Your task to perform on an android device: change alarm snooze length Image 0: 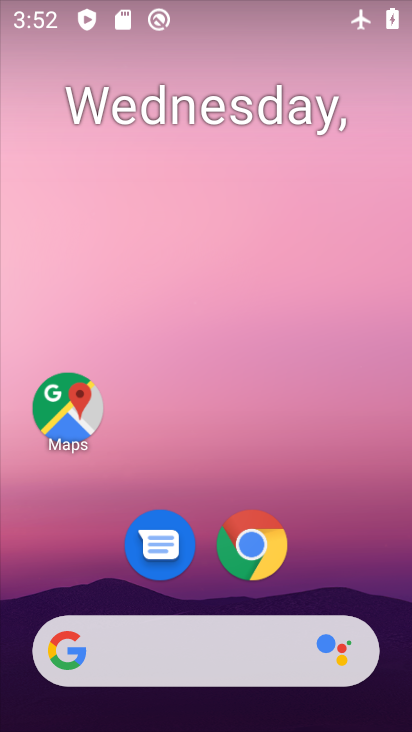
Step 0: drag from (340, 525) to (290, 105)
Your task to perform on an android device: change alarm snooze length Image 1: 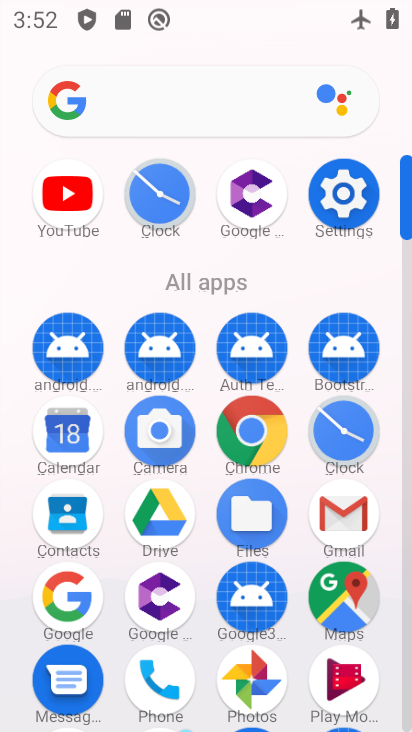
Step 1: click (341, 430)
Your task to perform on an android device: change alarm snooze length Image 2: 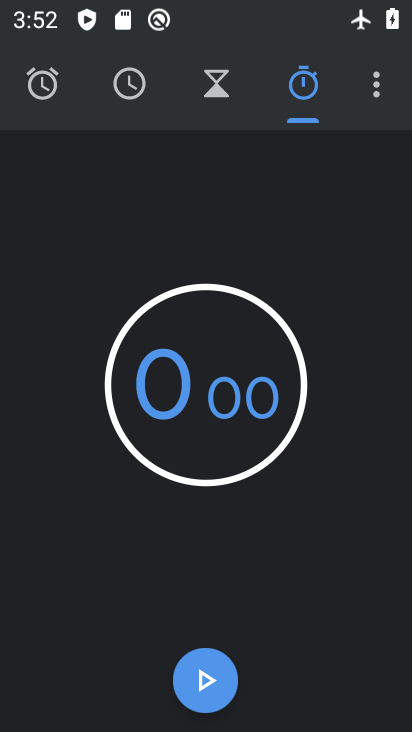
Step 2: click (375, 92)
Your task to perform on an android device: change alarm snooze length Image 3: 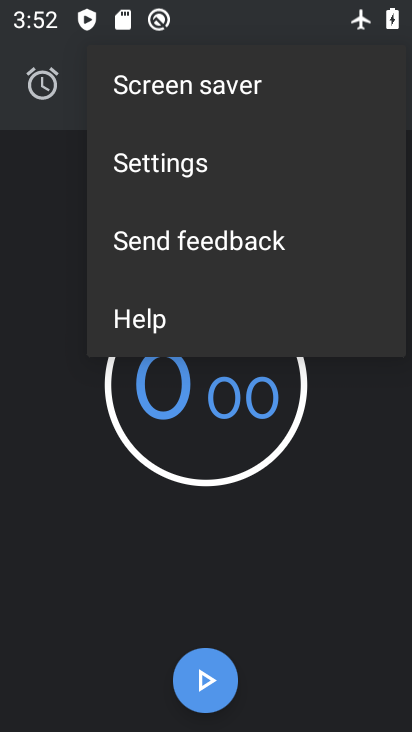
Step 3: click (197, 164)
Your task to perform on an android device: change alarm snooze length Image 4: 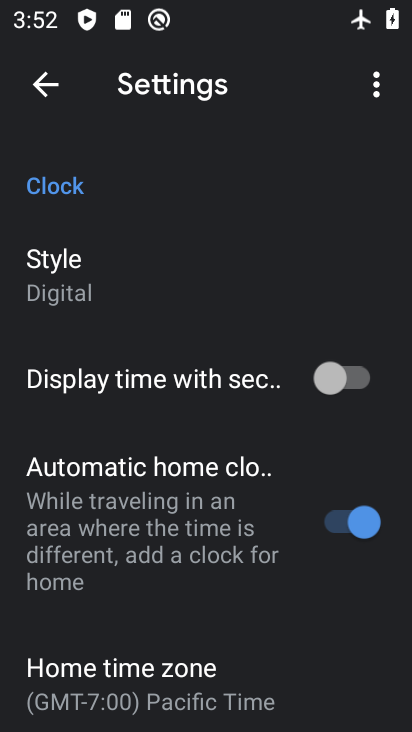
Step 4: drag from (189, 580) to (252, 439)
Your task to perform on an android device: change alarm snooze length Image 5: 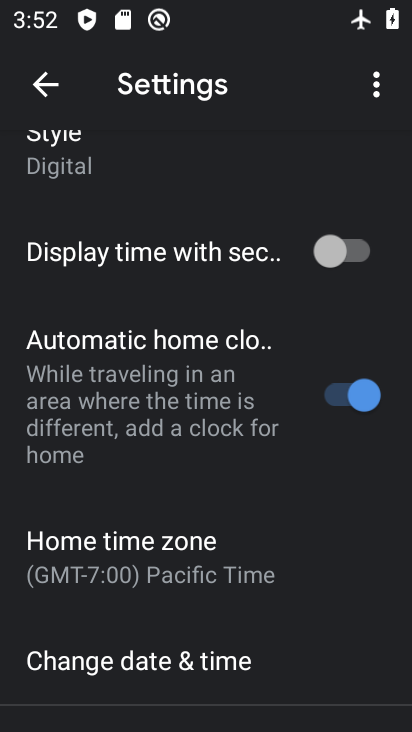
Step 5: drag from (204, 551) to (232, 480)
Your task to perform on an android device: change alarm snooze length Image 6: 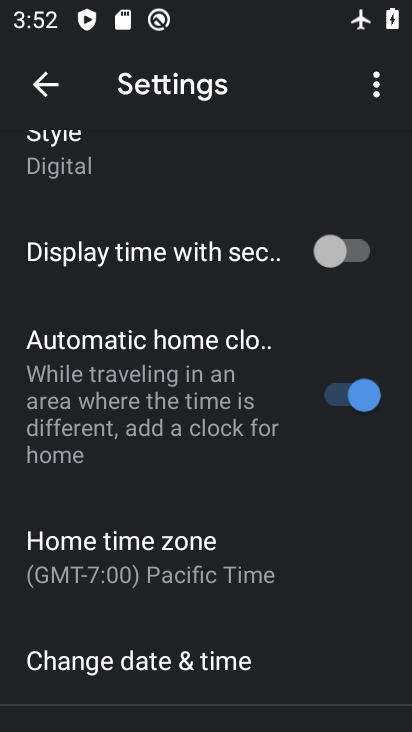
Step 6: drag from (184, 702) to (254, 503)
Your task to perform on an android device: change alarm snooze length Image 7: 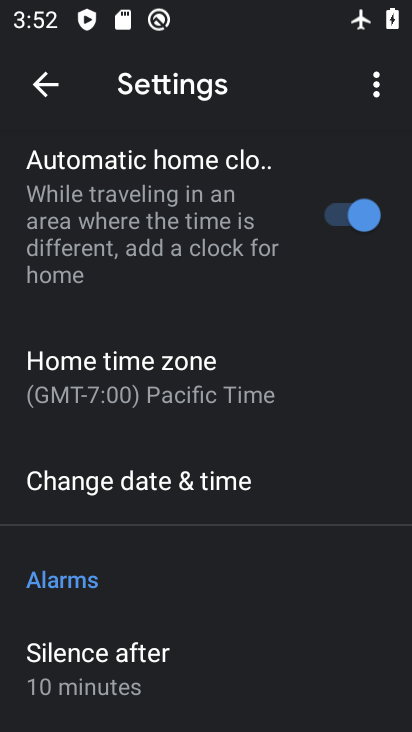
Step 7: drag from (197, 621) to (270, 496)
Your task to perform on an android device: change alarm snooze length Image 8: 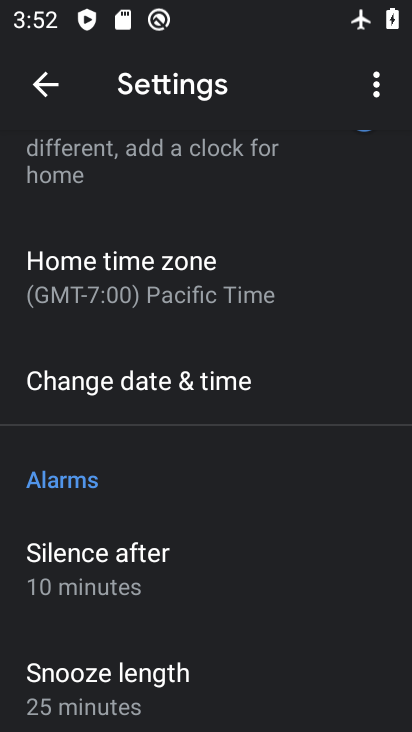
Step 8: drag from (219, 611) to (315, 416)
Your task to perform on an android device: change alarm snooze length Image 9: 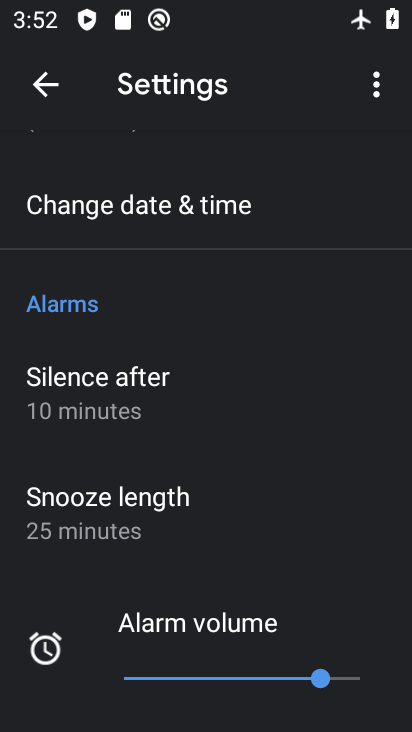
Step 9: click (169, 511)
Your task to perform on an android device: change alarm snooze length Image 10: 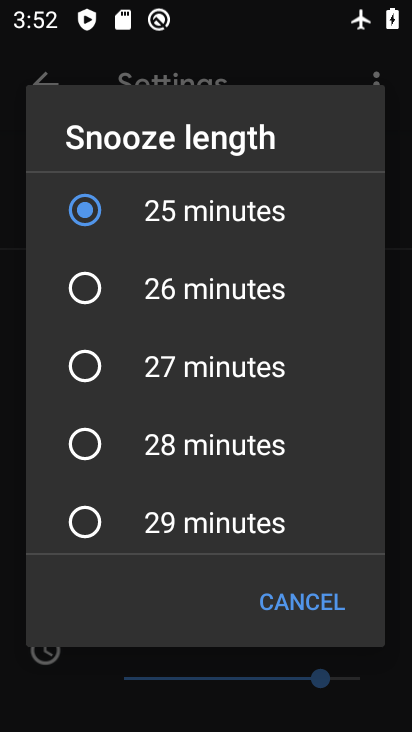
Step 10: click (104, 454)
Your task to perform on an android device: change alarm snooze length Image 11: 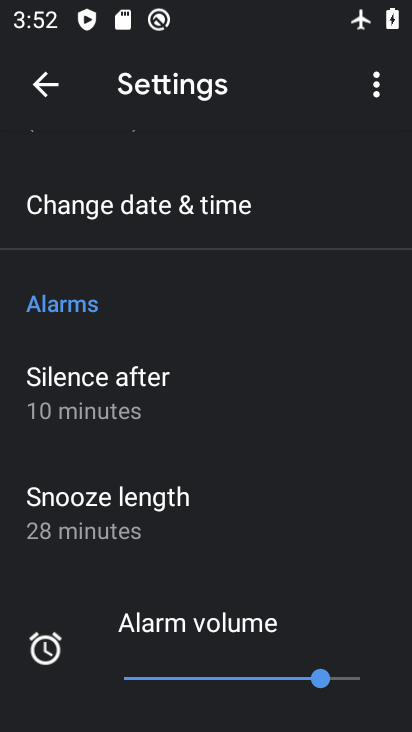
Step 11: task complete